Your task to perform on an android device: Open privacy settings Image 0: 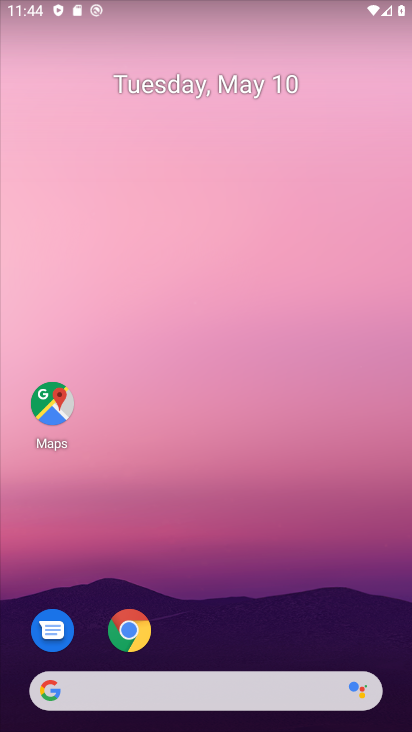
Step 0: drag from (216, 670) to (6, 681)
Your task to perform on an android device: Open privacy settings Image 1: 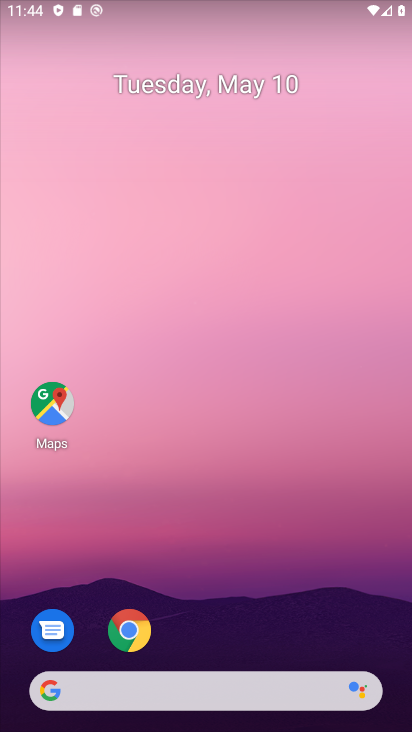
Step 1: click (115, 689)
Your task to perform on an android device: Open privacy settings Image 2: 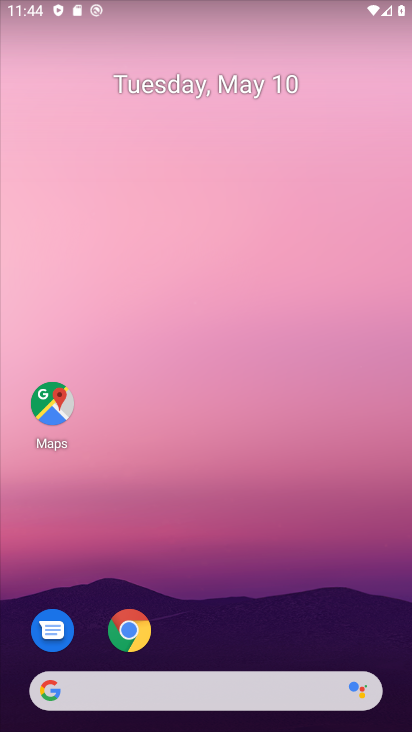
Step 2: drag from (115, 689) to (46, 101)
Your task to perform on an android device: Open privacy settings Image 3: 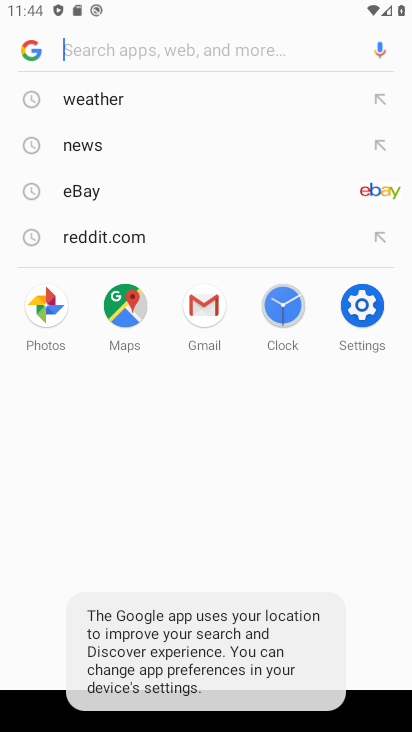
Step 3: press home button
Your task to perform on an android device: Open privacy settings Image 4: 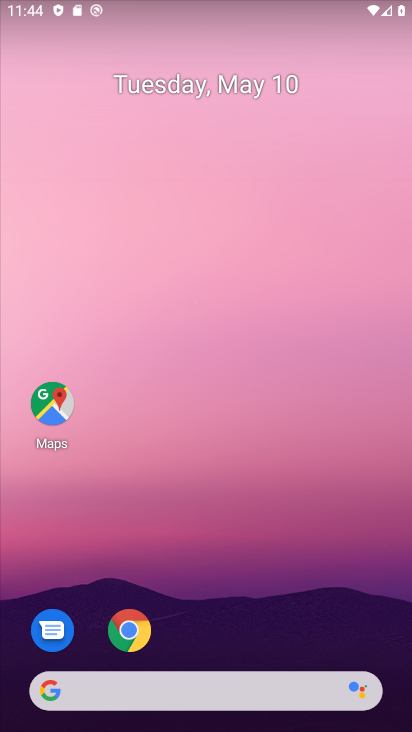
Step 4: drag from (203, 671) to (180, 24)
Your task to perform on an android device: Open privacy settings Image 5: 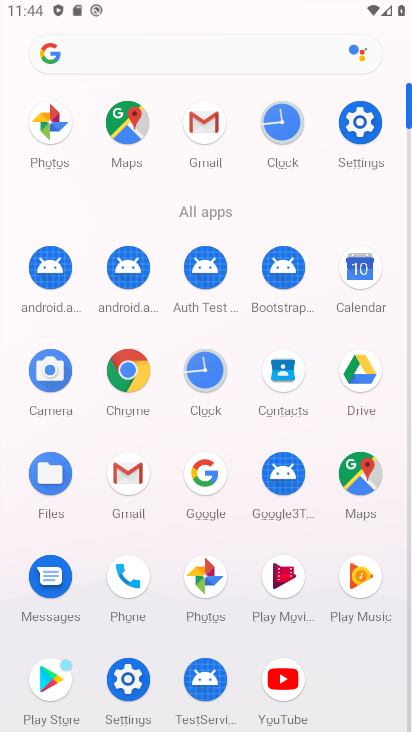
Step 5: click (124, 687)
Your task to perform on an android device: Open privacy settings Image 6: 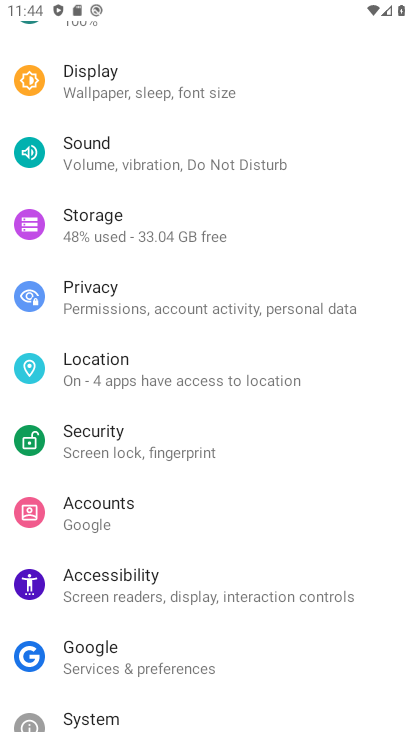
Step 6: click (112, 309)
Your task to perform on an android device: Open privacy settings Image 7: 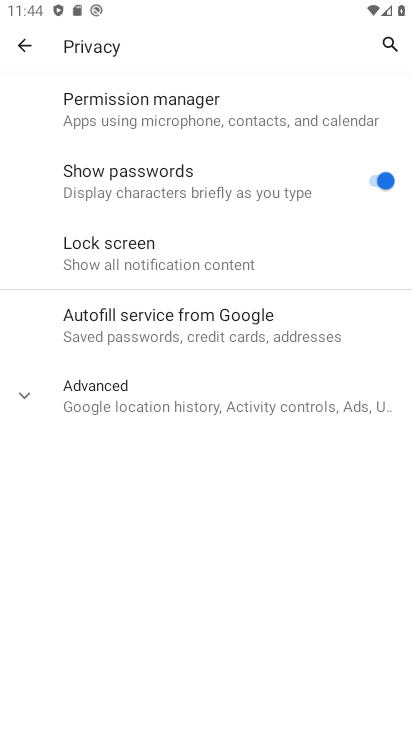
Step 7: click (123, 391)
Your task to perform on an android device: Open privacy settings Image 8: 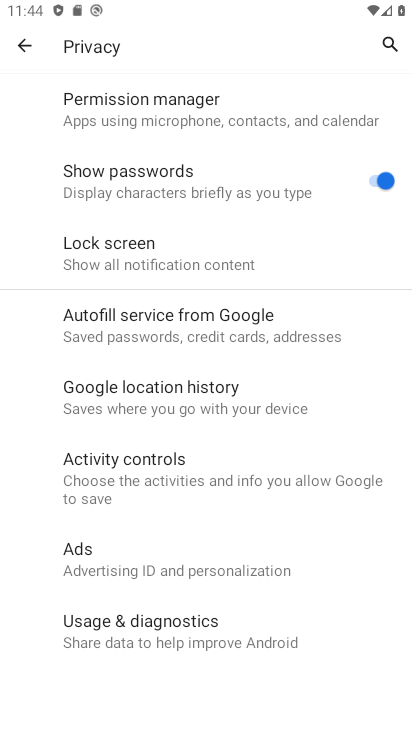
Step 8: task complete